Your task to perform on an android device: Go to privacy settings Image 0: 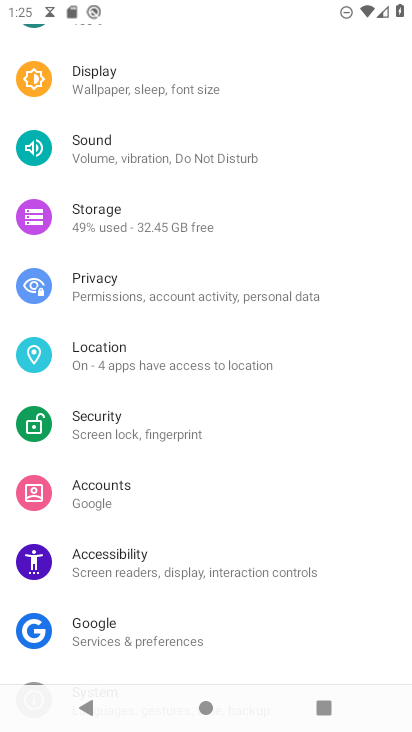
Step 0: click (107, 281)
Your task to perform on an android device: Go to privacy settings Image 1: 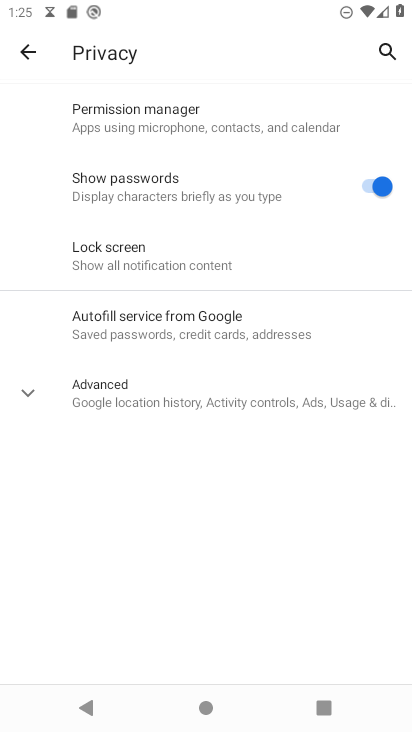
Step 1: click (21, 34)
Your task to perform on an android device: Go to privacy settings Image 2: 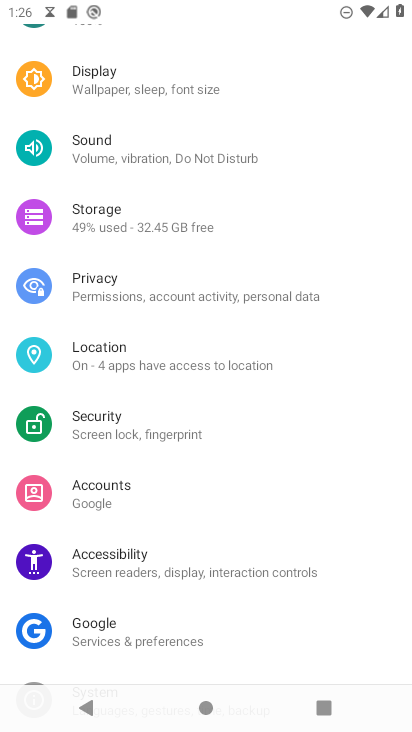
Step 2: click (103, 251)
Your task to perform on an android device: Go to privacy settings Image 3: 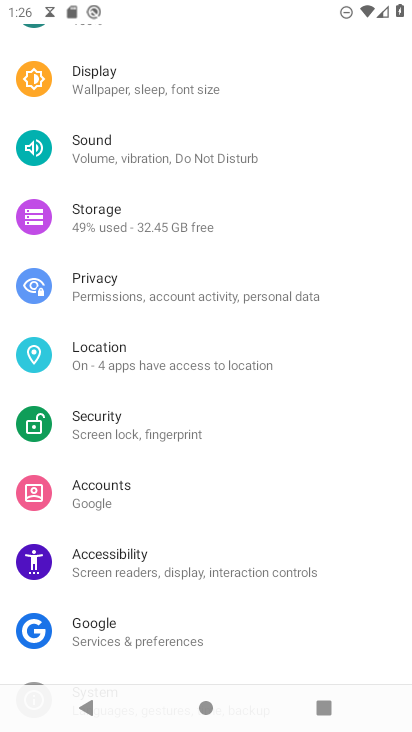
Step 3: click (90, 274)
Your task to perform on an android device: Go to privacy settings Image 4: 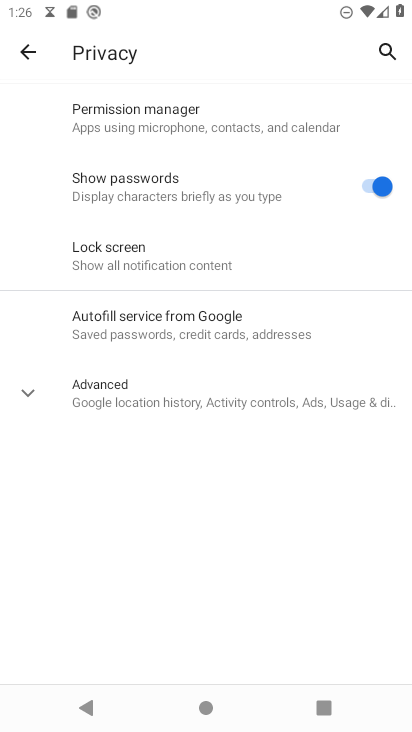
Step 4: task complete